Your task to perform on an android device: open chrome privacy settings Image 0: 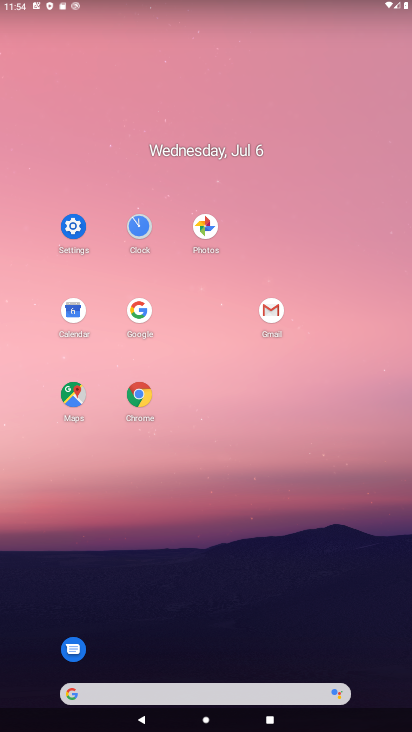
Step 0: click (140, 397)
Your task to perform on an android device: open chrome privacy settings Image 1: 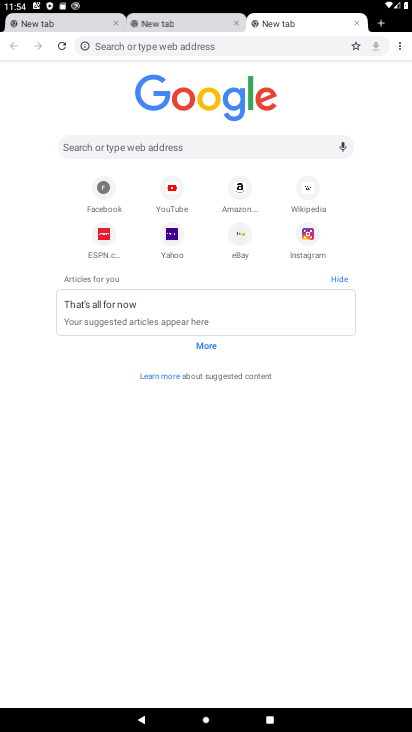
Step 1: click (397, 51)
Your task to perform on an android device: open chrome privacy settings Image 2: 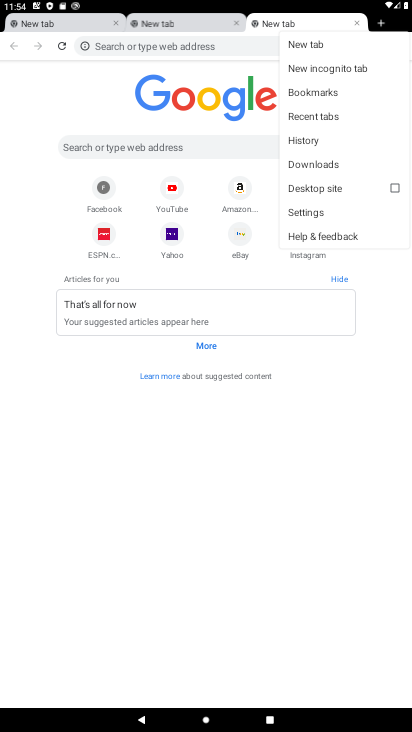
Step 2: click (326, 218)
Your task to perform on an android device: open chrome privacy settings Image 3: 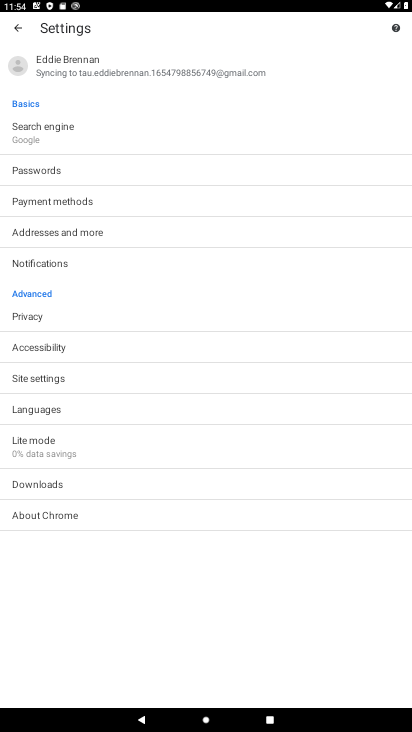
Step 3: click (35, 315)
Your task to perform on an android device: open chrome privacy settings Image 4: 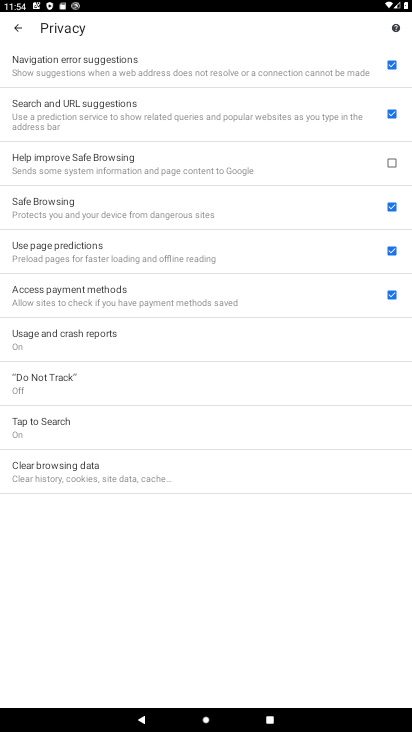
Step 4: task complete